Your task to perform on an android device: search for starred emails in the gmail app Image 0: 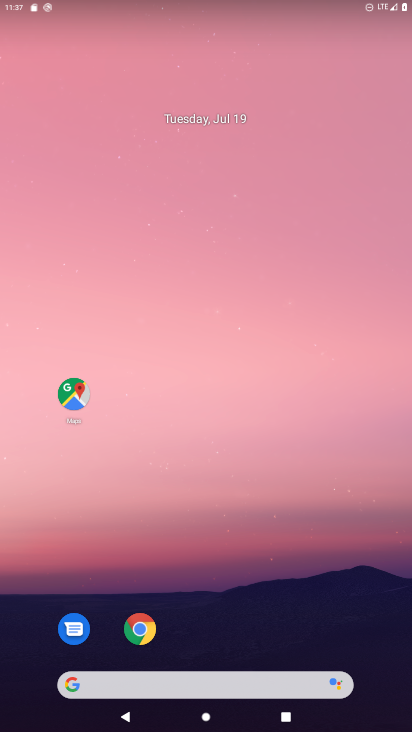
Step 0: drag from (223, 604) to (223, 95)
Your task to perform on an android device: search for starred emails in the gmail app Image 1: 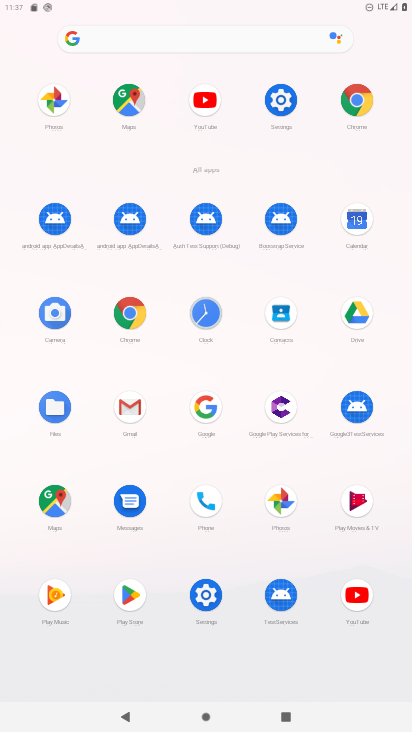
Step 1: click (115, 404)
Your task to perform on an android device: search for starred emails in the gmail app Image 2: 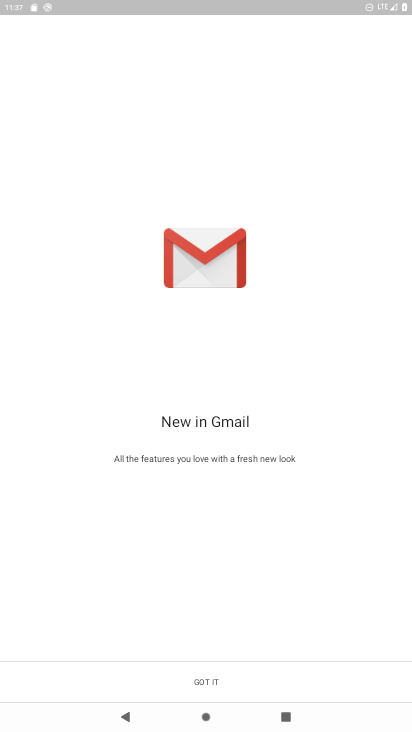
Step 2: click (196, 680)
Your task to perform on an android device: search for starred emails in the gmail app Image 3: 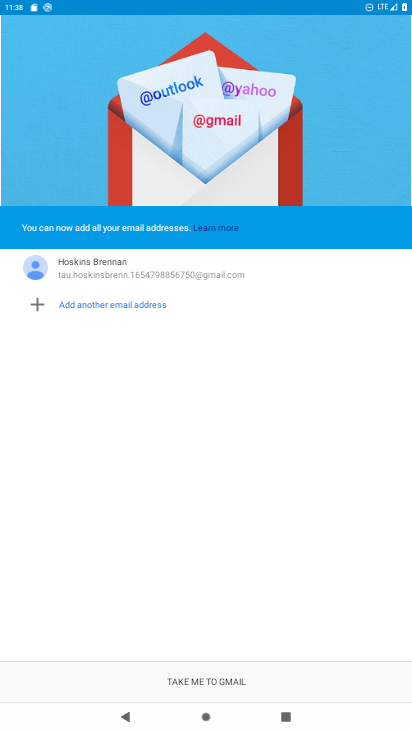
Step 3: click (196, 680)
Your task to perform on an android device: search for starred emails in the gmail app Image 4: 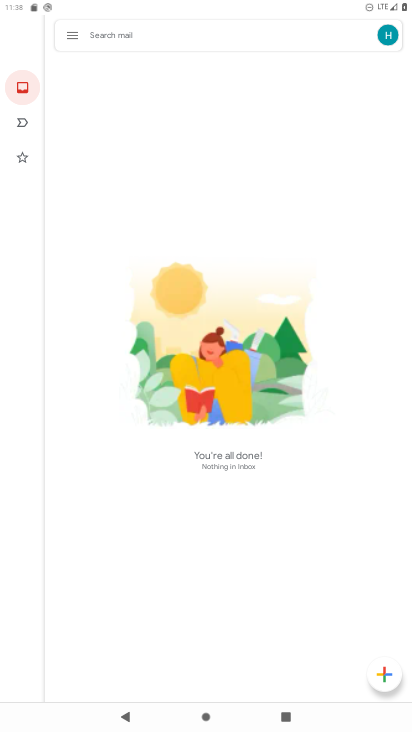
Step 4: click (70, 32)
Your task to perform on an android device: search for starred emails in the gmail app Image 5: 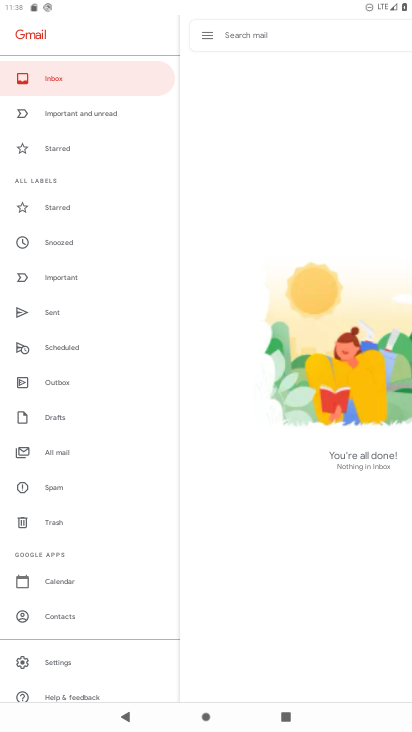
Step 5: click (55, 211)
Your task to perform on an android device: search for starred emails in the gmail app Image 6: 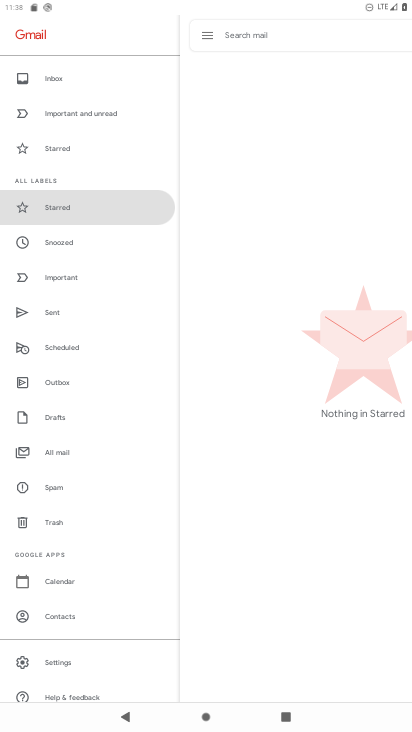
Step 6: task complete